Your task to perform on an android device: Search for bose soundlink mini on bestbuy.com, select the first entry, add it to the cart, then select checkout. Image 0: 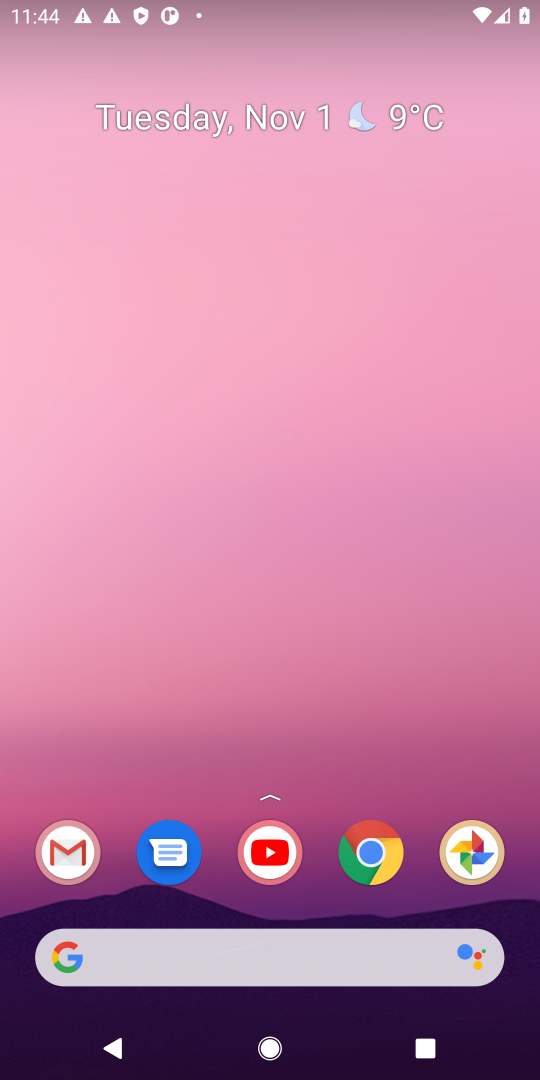
Step 0: click (378, 839)
Your task to perform on an android device: Search for bose soundlink mini on bestbuy.com, select the first entry, add it to the cart, then select checkout. Image 1: 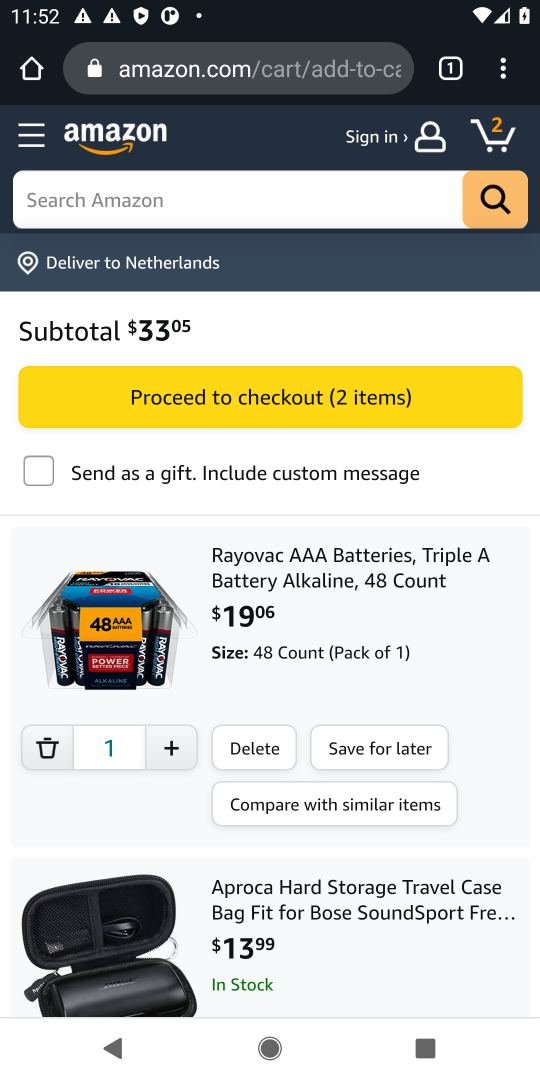
Step 1: press home button
Your task to perform on an android device: Search for bose soundlink mini on bestbuy.com, select the first entry, add it to the cart, then select checkout. Image 2: 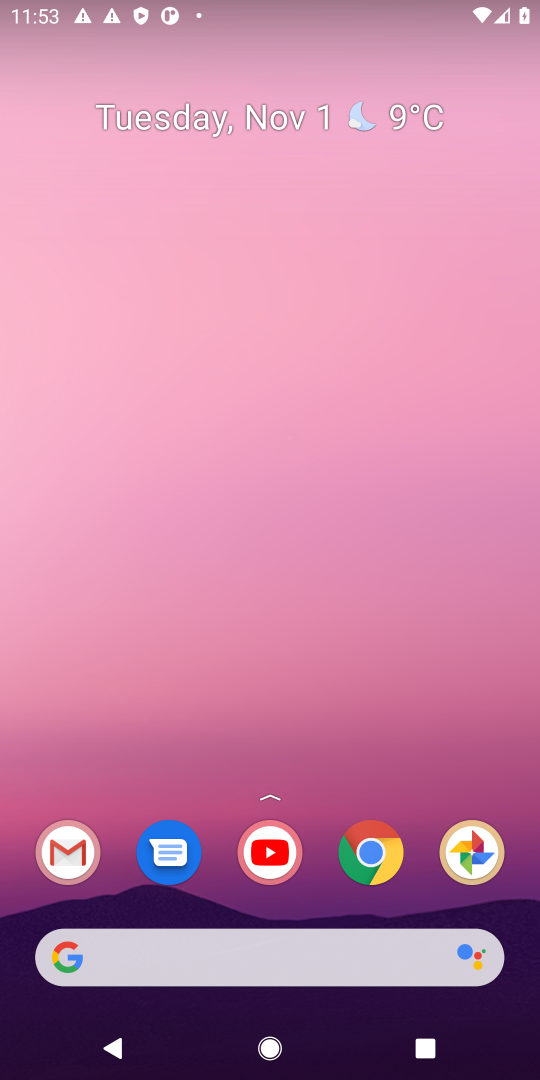
Step 2: drag from (263, 888) to (299, 177)
Your task to perform on an android device: Search for bose soundlink mini on bestbuy.com, select the first entry, add it to the cart, then select checkout. Image 3: 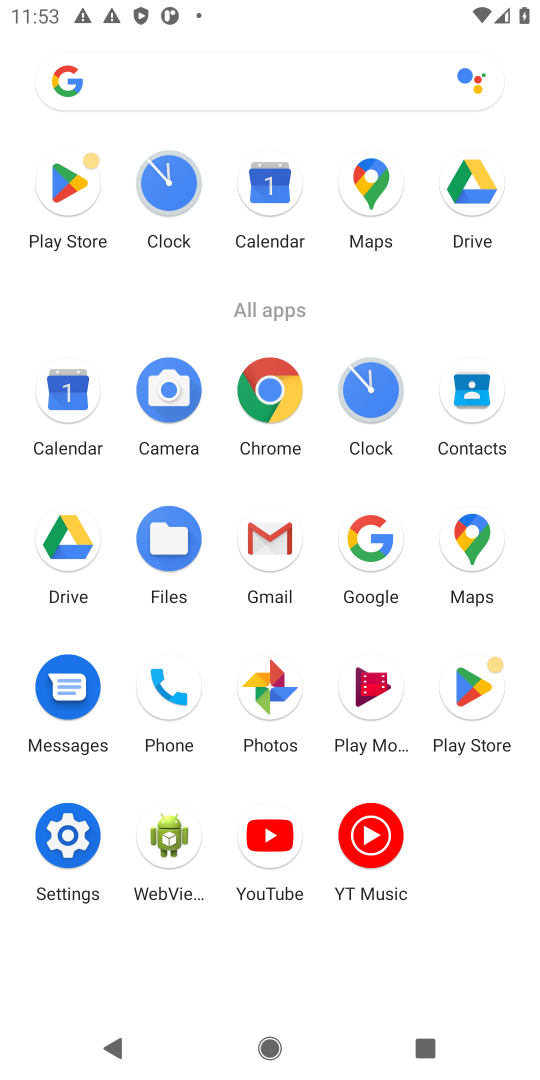
Step 3: click (390, 576)
Your task to perform on an android device: Search for bose soundlink mini on bestbuy.com, select the first entry, add it to the cart, then select checkout. Image 4: 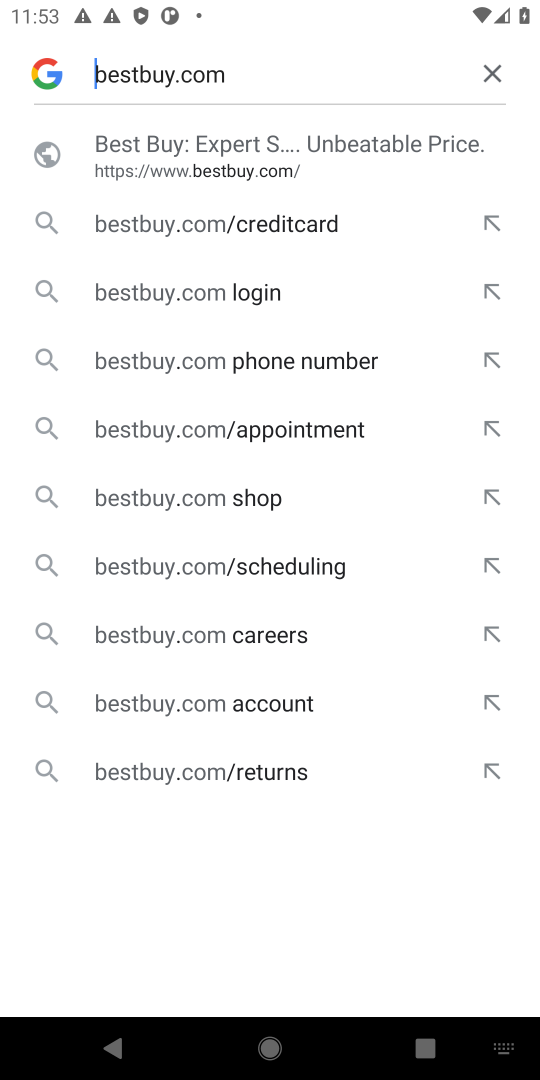
Step 4: click (287, 156)
Your task to perform on an android device: Search for bose soundlink mini on bestbuy.com, select the first entry, add it to the cart, then select checkout. Image 5: 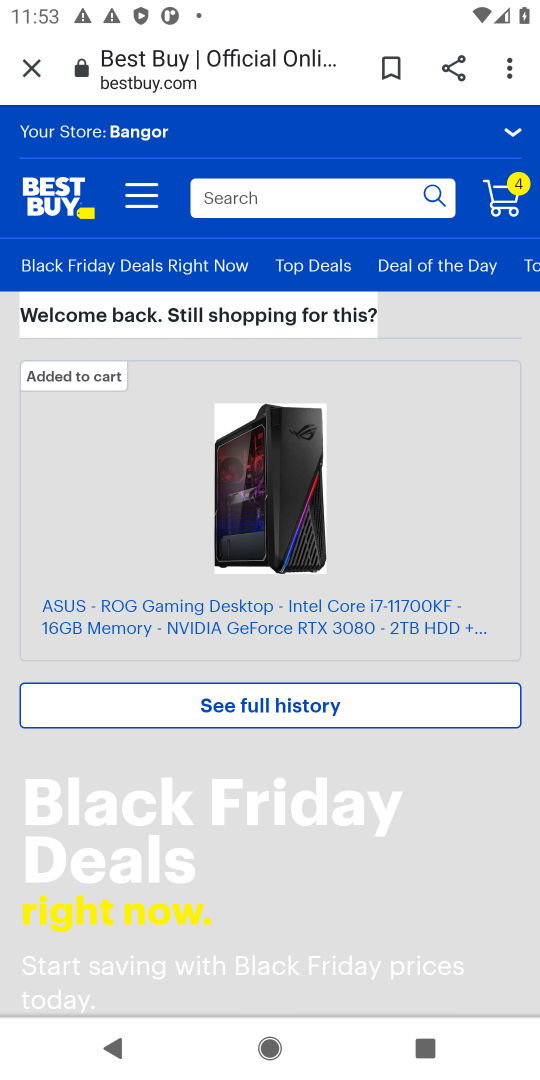
Step 5: click (285, 197)
Your task to perform on an android device: Search for bose soundlink mini on bestbuy.com, select the first entry, add it to the cart, then select checkout. Image 6: 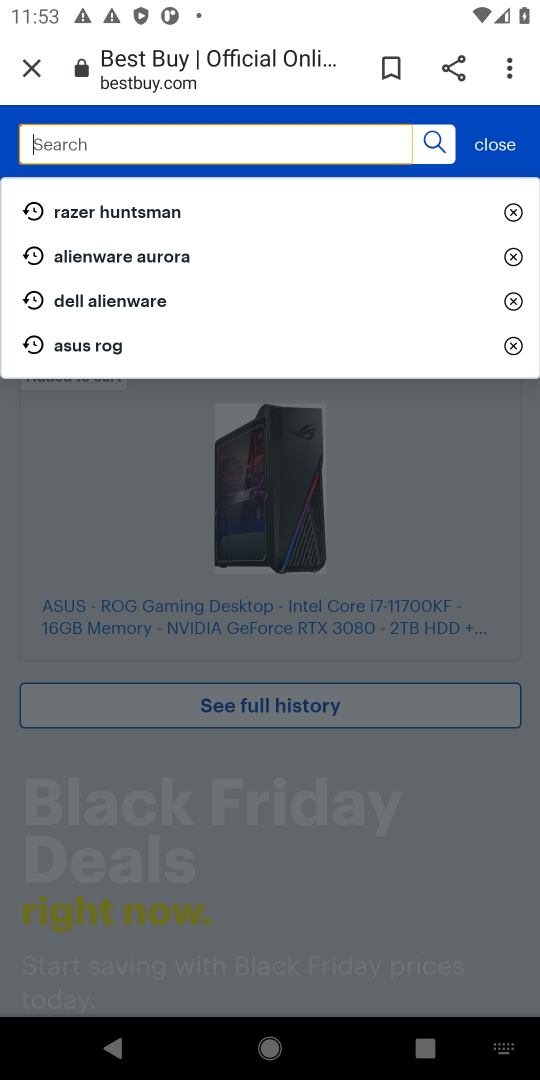
Step 6: type "bose soundlink mini"
Your task to perform on an android device: Search for bose soundlink mini on bestbuy.com, select the first entry, add it to the cart, then select checkout. Image 7: 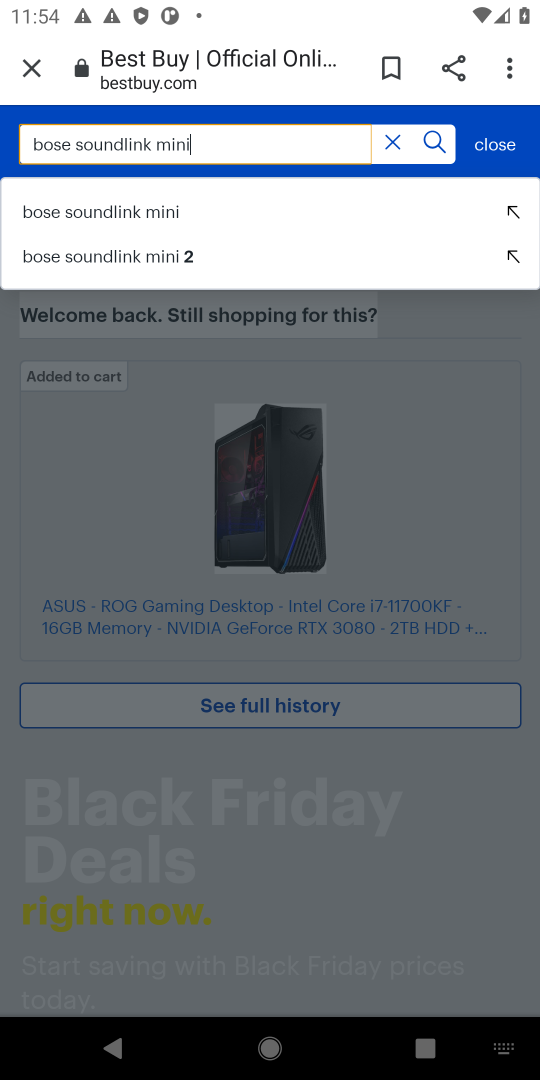
Step 7: click (157, 205)
Your task to perform on an android device: Search for bose soundlink mini on bestbuy.com, select the first entry, add it to the cart, then select checkout. Image 8: 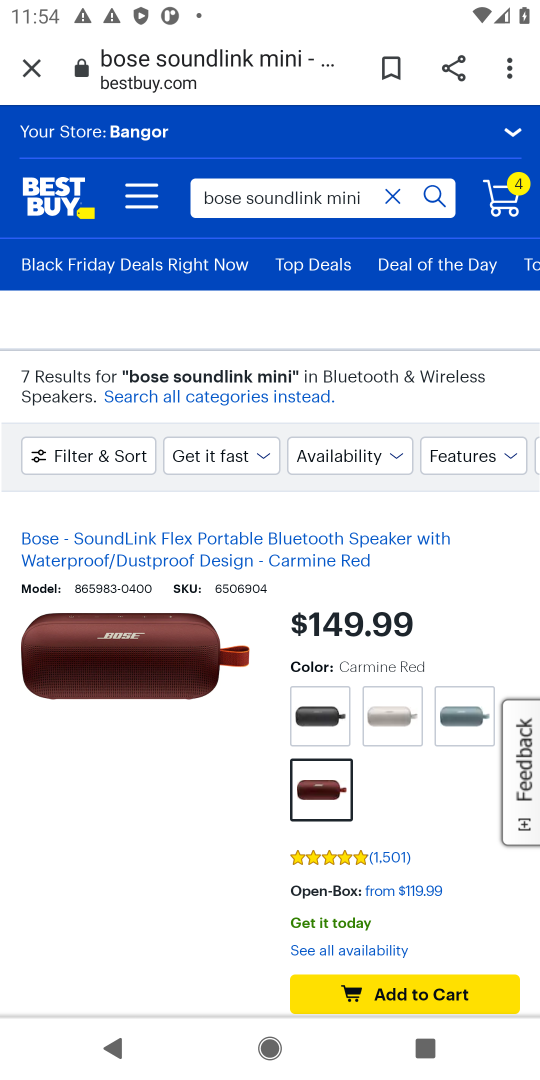
Step 8: drag from (247, 652) to (243, 488)
Your task to perform on an android device: Search for bose soundlink mini on bestbuy.com, select the first entry, add it to the cart, then select checkout. Image 9: 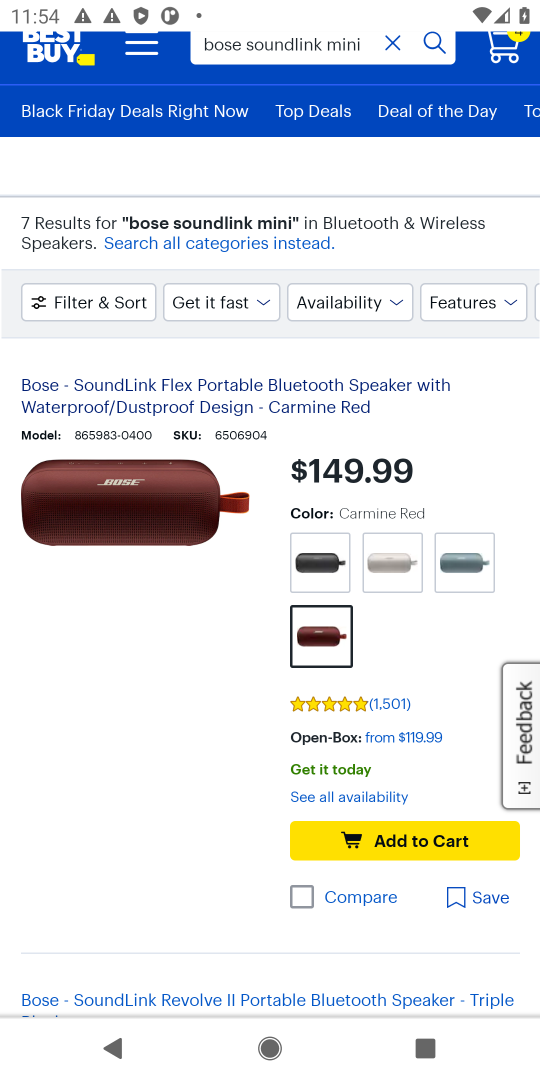
Step 9: click (442, 839)
Your task to perform on an android device: Search for bose soundlink mini on bestbuy.com, select the first entry, add it to the cart, then select checkout. Image 10: 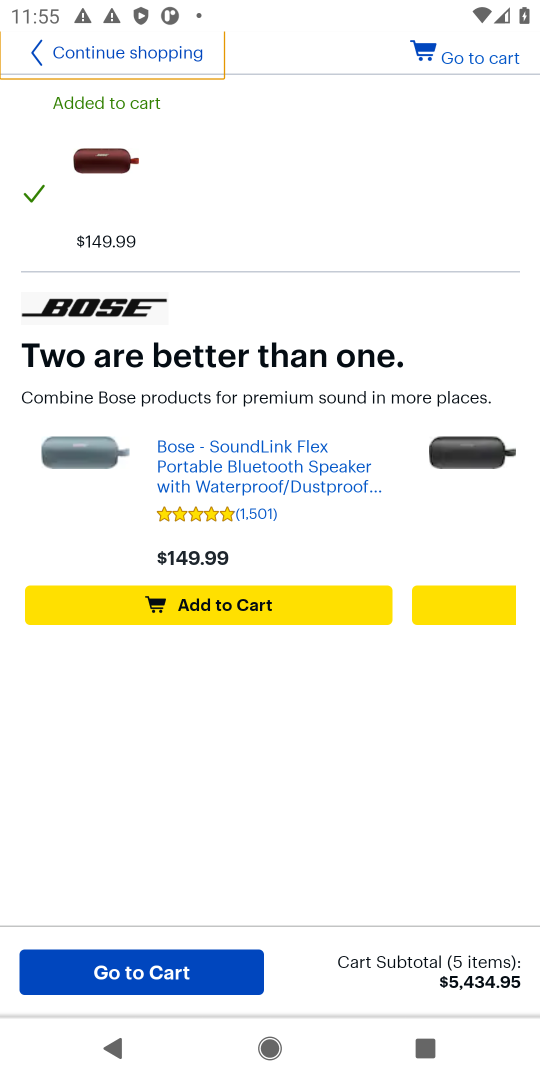
Step 10: click (236, 604)
Your task to perform on an android device: Search for bose soundlink mini on bestbuy.com, select the first entry, add it to the cart, then select checkout. Image 11: 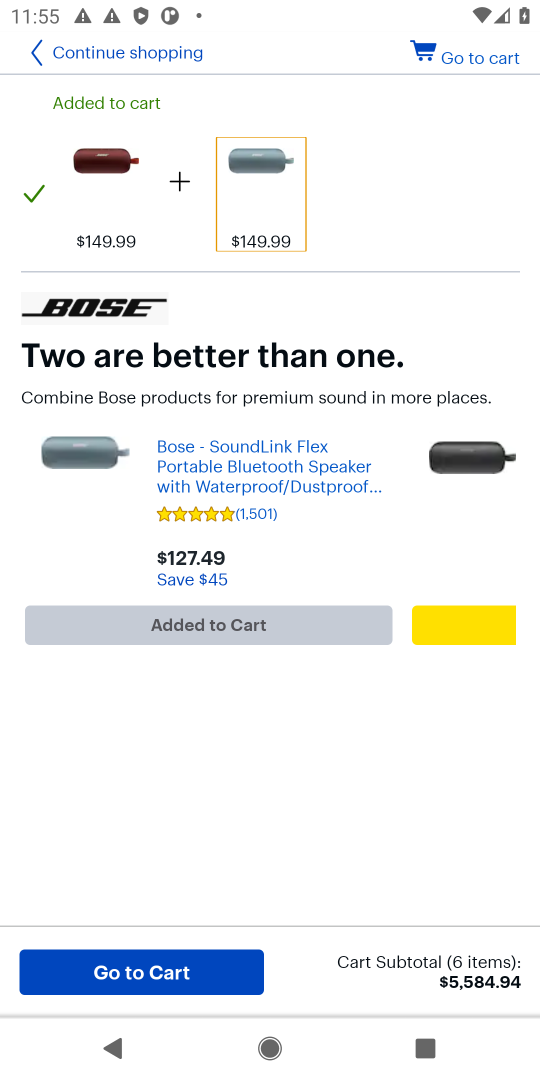
Step 11: click (138, 975)
Your task to perform on an android device: Search for bose soundlink mini on bestbuy.com, select the first entry, add it to the cart, then select checkout. Image 12: 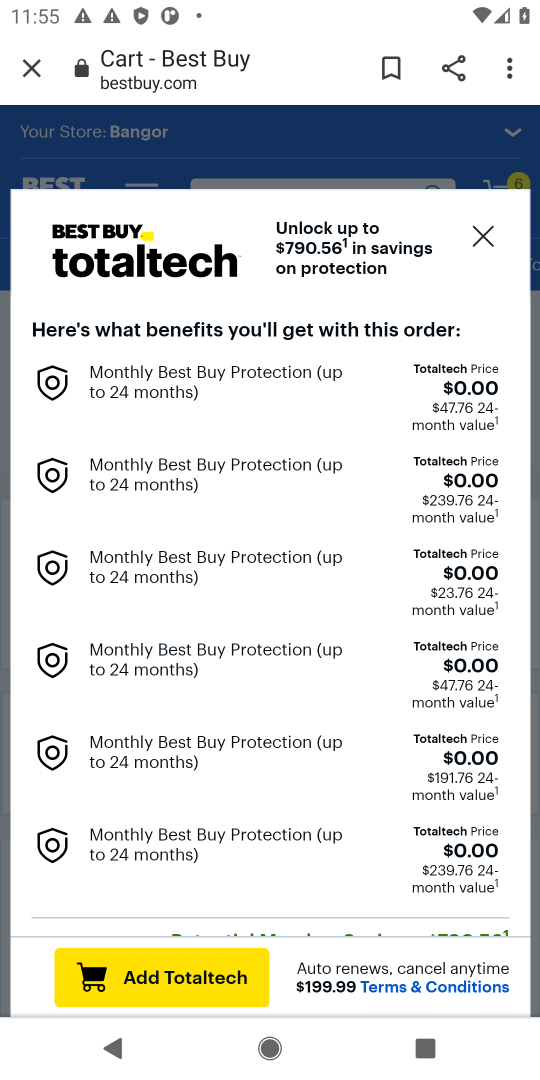
Step 12: click (479, 246)
Your task to perform on an android device: Search for bose soundlink mini on bestbuy.com, select the first entry, add it to the cart, then select checkout. Image 13: 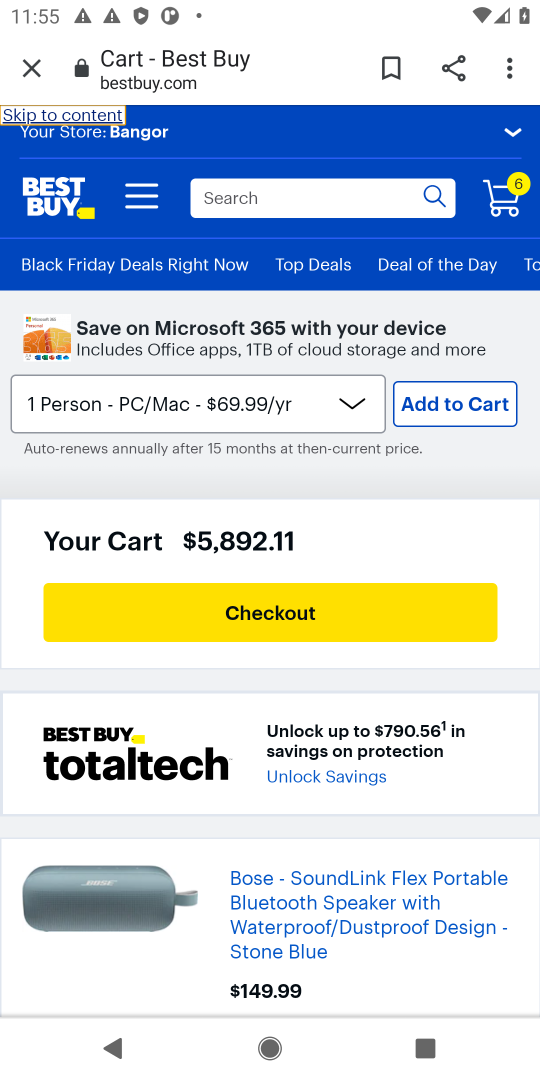
Step 13: click (259, 625)
Your task to perform on an android device: Search for bose soundlink mini on bestbuy.com, select the first entry, add it to the cart, then select checkout. Image 14: 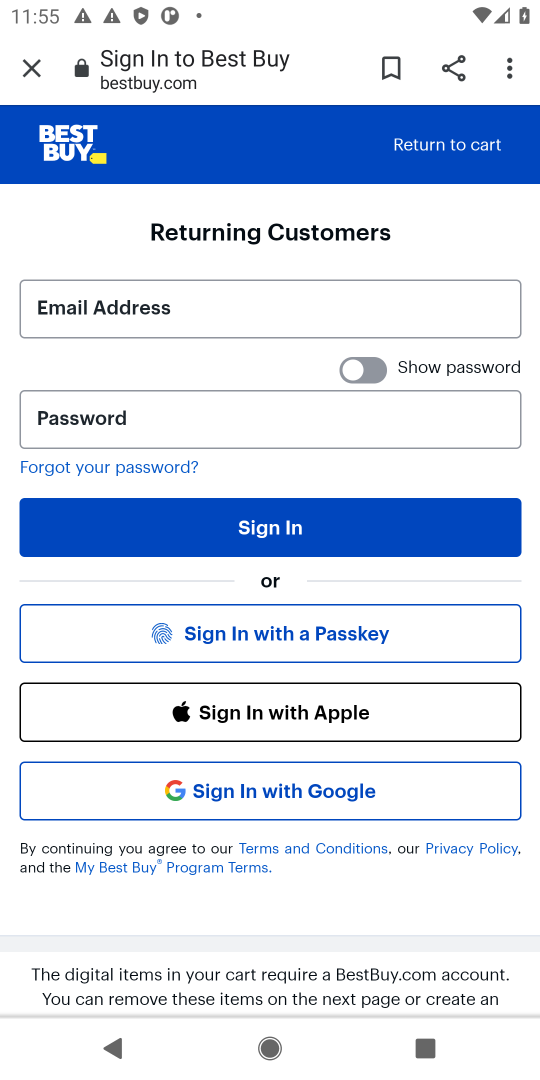
Step 14: task complete